Your task to perform on an android device: delete a single message in the gmail app Image 0: 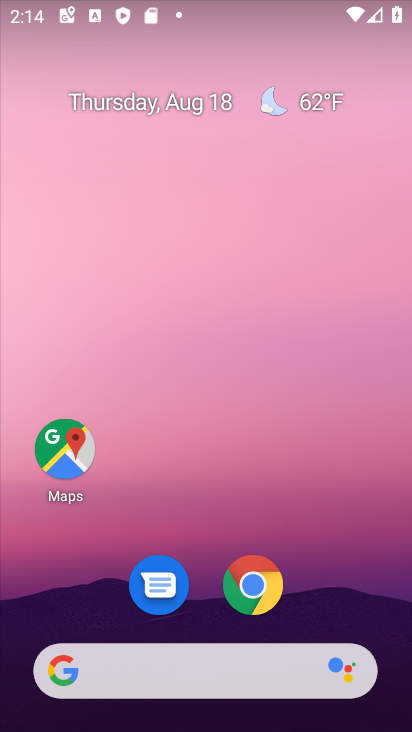
Step 0: drag from (278, 520) to (299, 0)
Your task to perform on an android device: delete a single message in the gmail app Image 1: 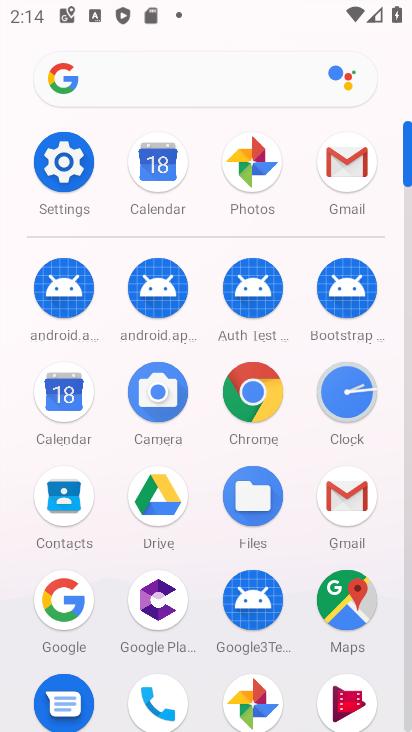
Step 1: click (347, 159)
Your task to perform on an android device: delete a single message in the gmail app Image 2: 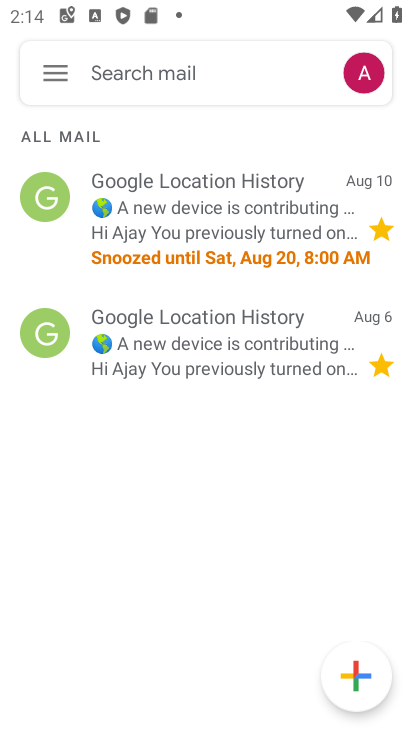
Step 2: click (37, 331)
Your task to perform on an android device: delete a single message in the gmail app Image 3: 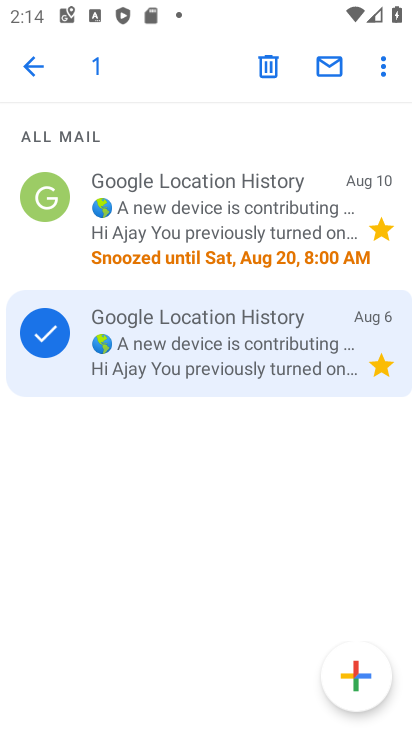
Step 3: click (267, 67)
Your task to perform on an android device: delete a single message in the gmail app Image 4: 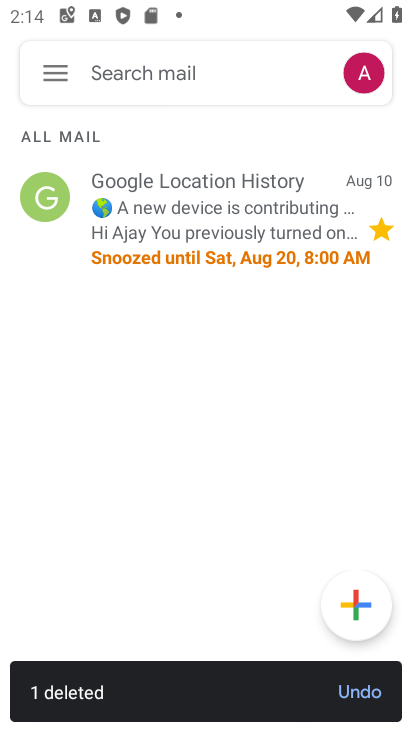
Step 4: task complete